Your task to perform on an android device: Open calendar and show me the second week of next month Image 0: 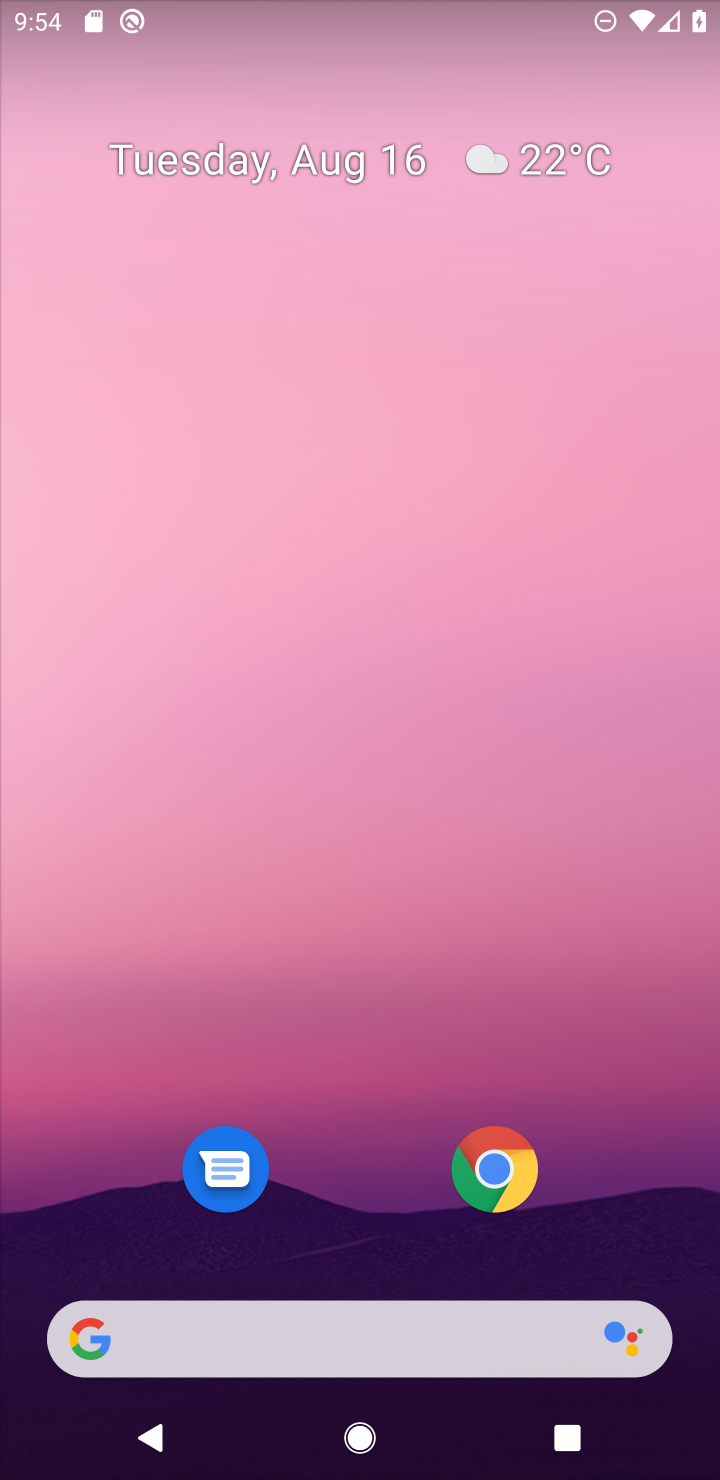
Step 0: drag from (291, 1115) to (171, 175)
Your task to perform on an android device: Open calendar and show me the second week of next month Image 1: 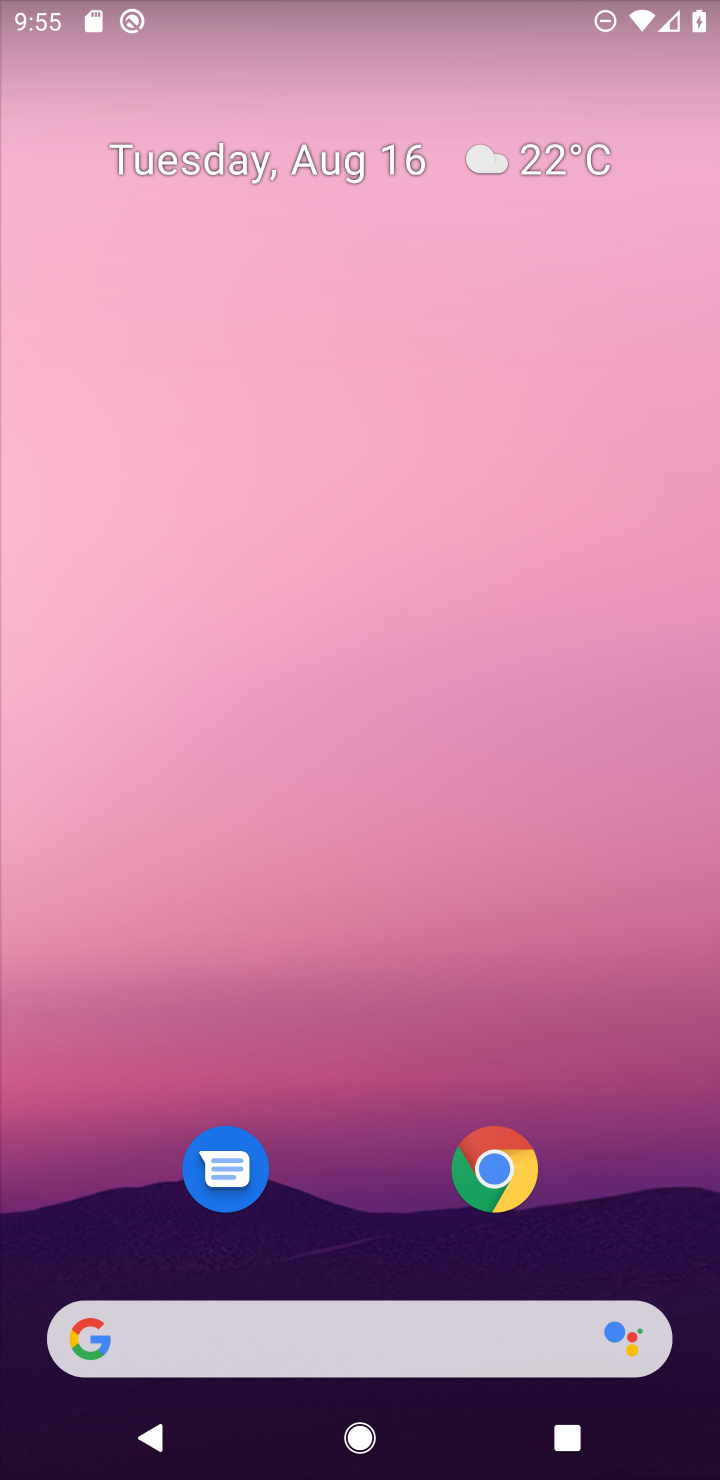
Step 1: drag from (351, 1032) to (335, 219)
Your task to perform on an android device: Open calendar and show me the second week of next month Image 2: 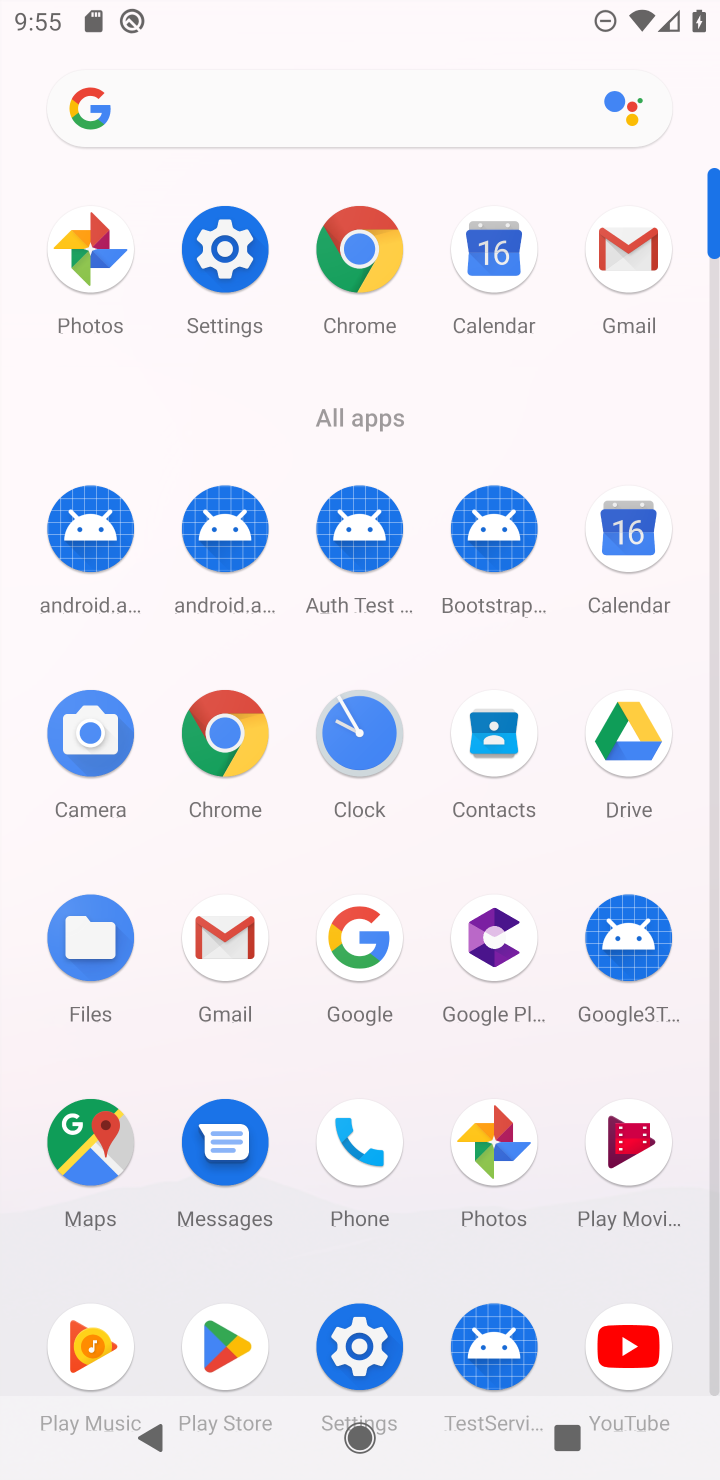
Step 2: click (625, 521)
Your task to perform on an android device: Open calendar and show me the second week of next month Image 3: 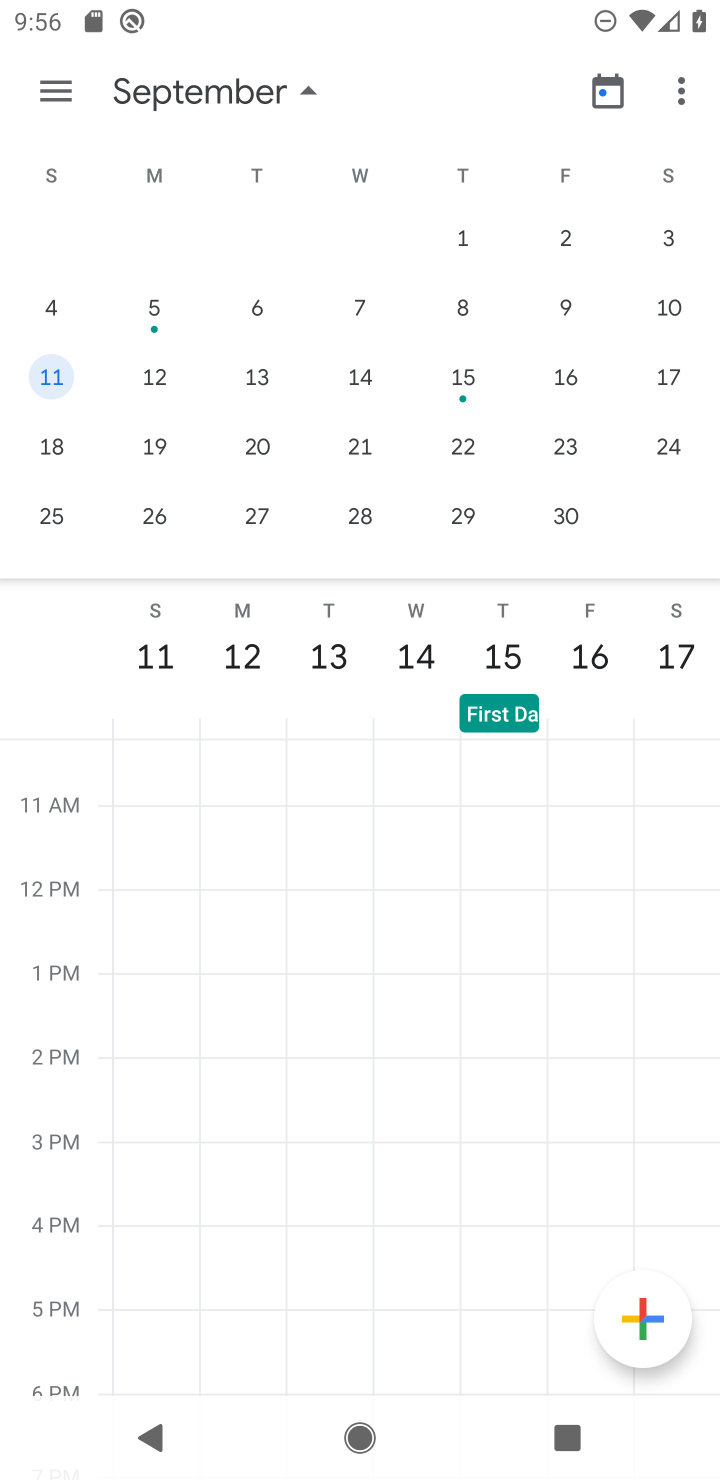
Step 3: click (54, 308)
Your task to perform on an android device: Open calendar and show me the second week of next month Image 4: 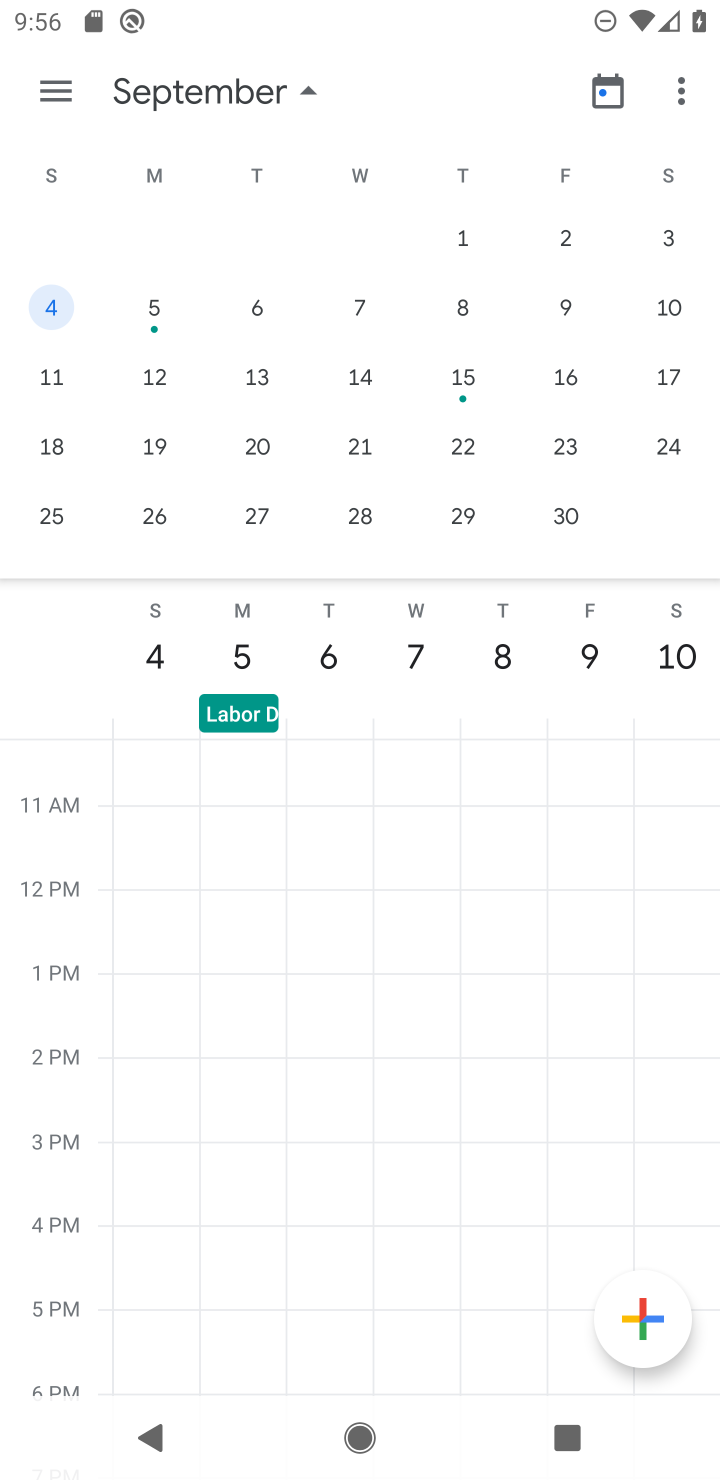
Step 4: task complete